Your task to perform on an android device: toggle improve location accuracy Image 0: 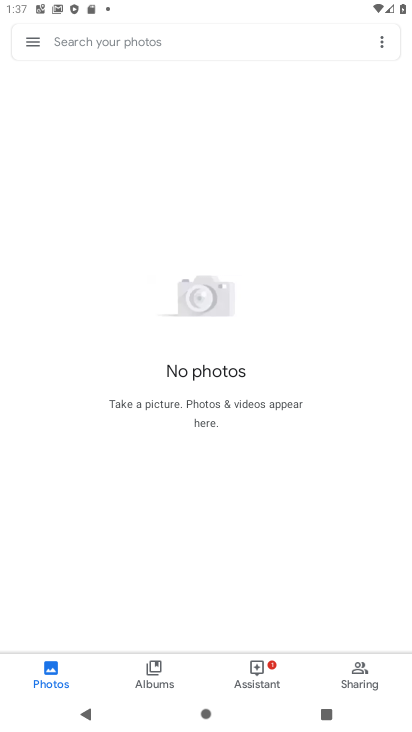
Step 0: press home button
Your task to perform on an android device: toggle improve location accuracy Image 1: 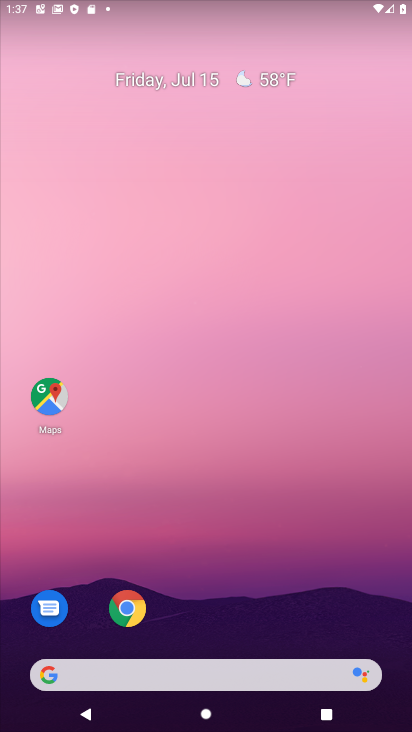
Step 1: drag from (187, 626) to (157, 173)
Your task to perform on an android device: toggle improve location accuracy Image 2: 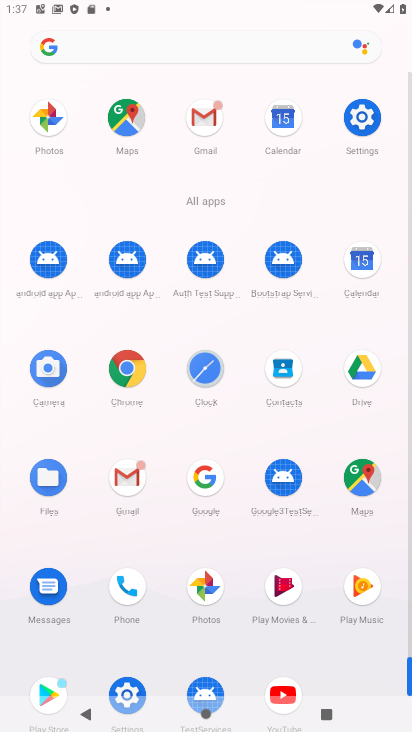
Step 2: click (136, 678)
Your task to perform on an android device: toggle improve location accuracy Image 3: 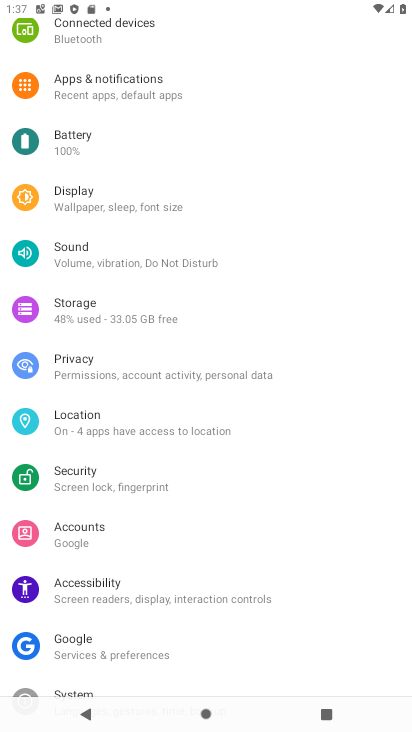
Step 3: click (66, 413)
Your task to perform on an android device: toggle improve location accuracy Image 4: 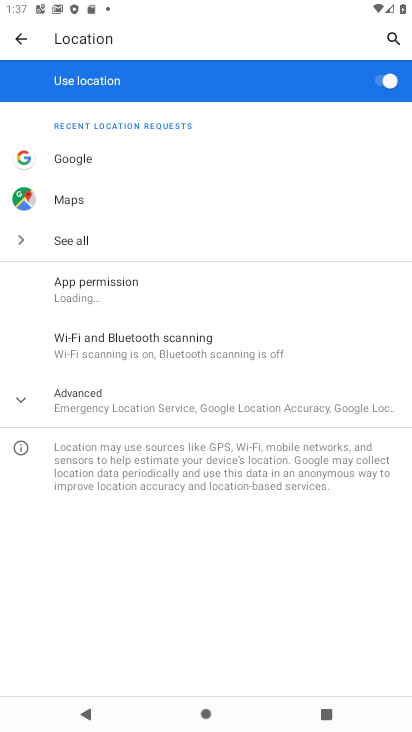
Step 4: click (103, 389)
Your task to perform on an android device: toggle improve location accuracy Image 5: 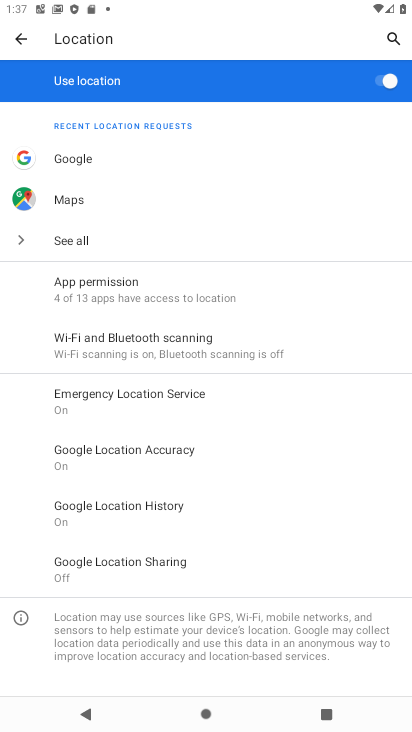
Step 5: click (104, 451)
Your task to perform on an android device: toggle improve location accuracy Image 6: 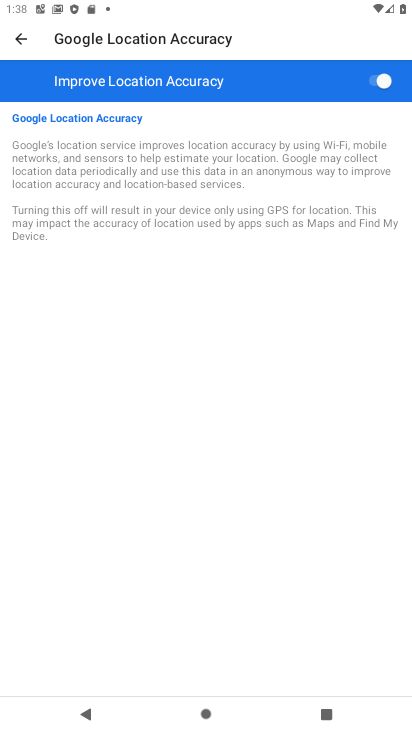
Step 6: click (192, 92)
Your task to perform on an android device: toggle improve location accuracy Image 7: 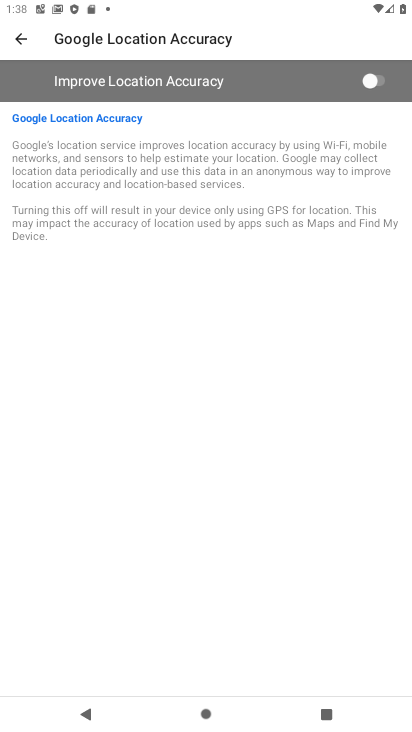
Step 7: task complete